Your task to perform on an android device: Is it going to rain tomorrow? Image 0: 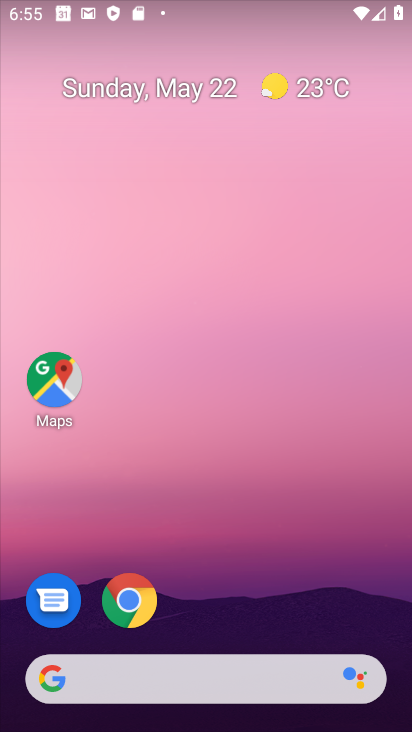
Step 0: drag from (318, 596) to (347, 15)
Your task to perform on an android device: Is it going to rain tomorrow? Image 1: 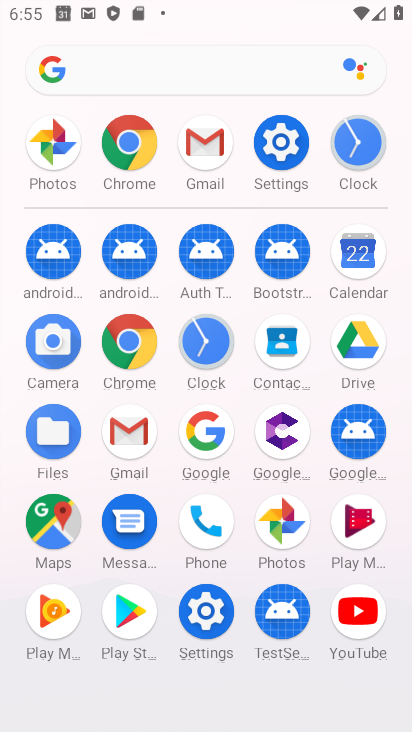
Step 1: click (202, 440)
Your task to perform on an android device: Is it going to rain tomorrow? Image 2: 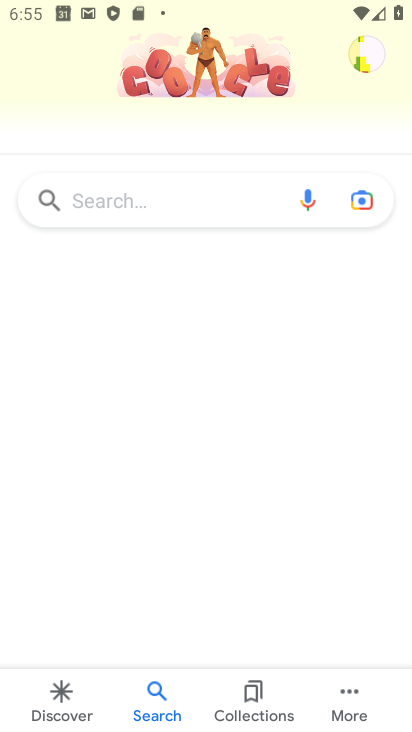
Step 2: click (138, 194)
Your task to perform on an android device: Is it going to rain tomorrow? Image 3: 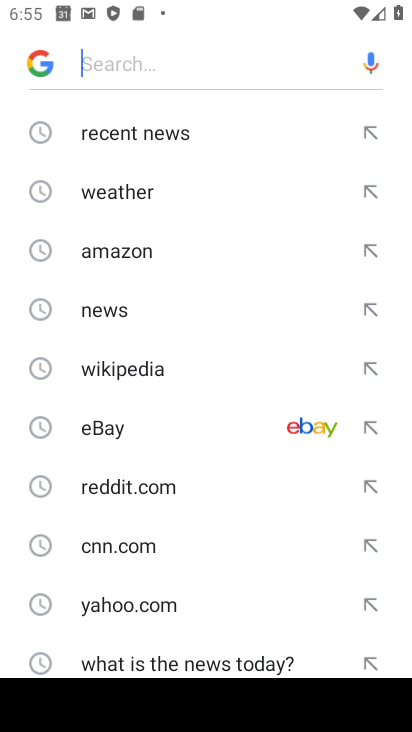
Step 3: drag from (124, 598) to (164, 196)
Your task to perform on an android device: Is it going to rain tomorrow? Image 4: 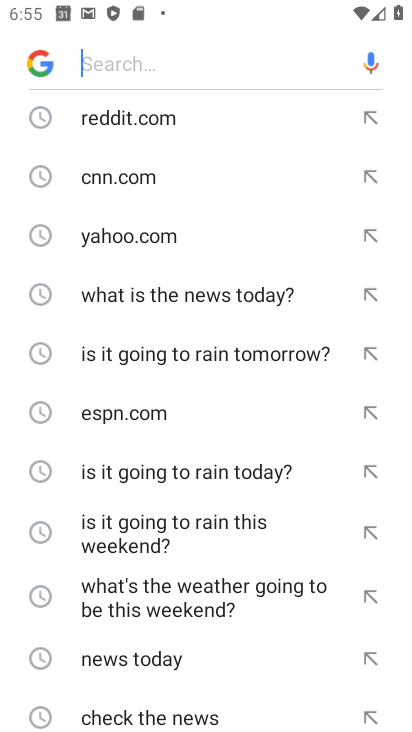
Step 4: click (225, 353)
Your task to perform on an android device: Is it going to rain tomorrow? Image 5: 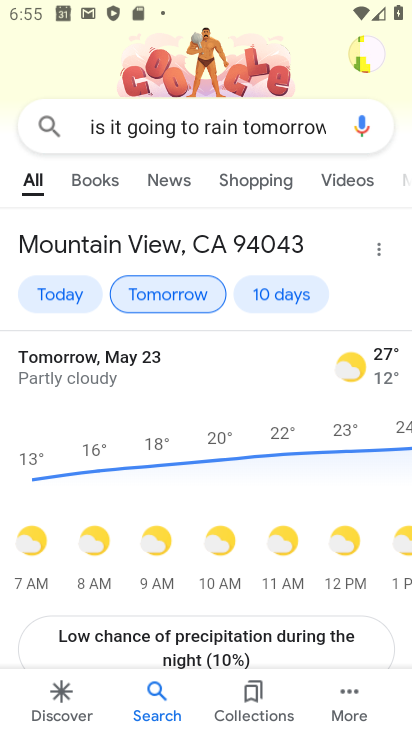
Step 5: task complete